Your task to perform on an android device: Open eBay Image 0: 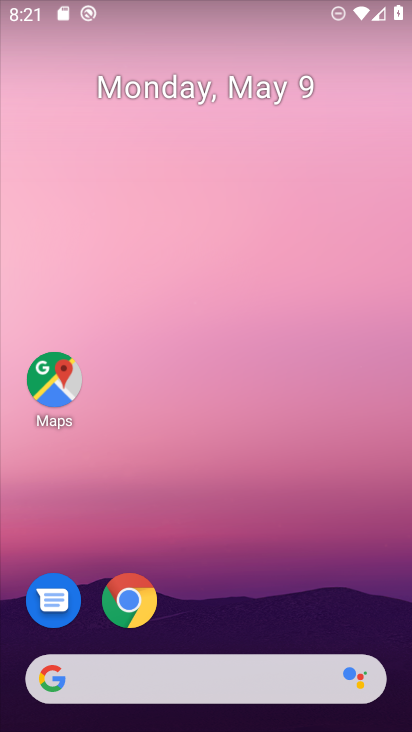
Step 0: drag from (224, 574) to (185, 72)
Your task to perform on an android device: Open eBay Image 1: 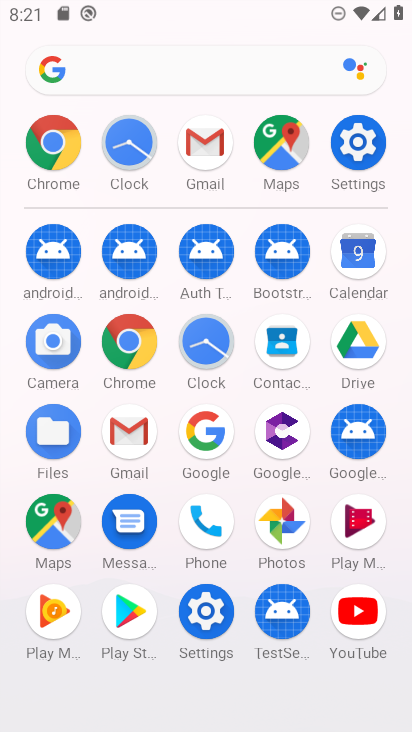
Step 1: drag from (10, 589) to (15, 358)
Your task to perform on an android device: Open eBay Image 2: 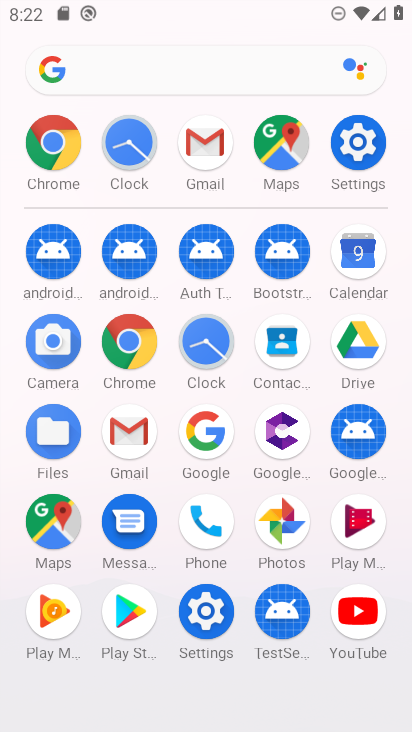
Step 2: click (128, 333)
Your task to perform on an android device: Open eBay Image 3: 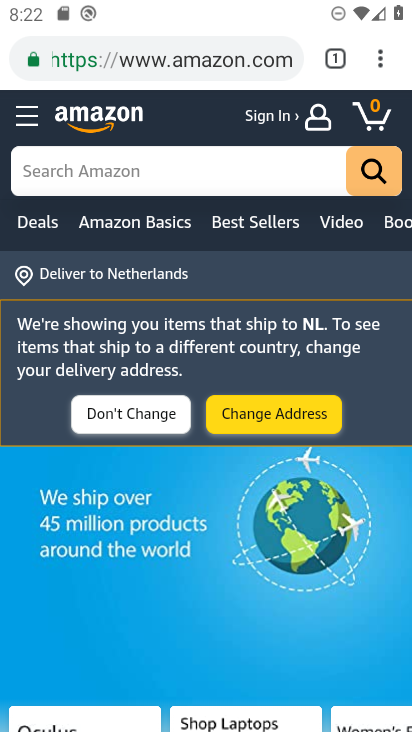
Step 3: click (178, 57)
Your task to perform on an android device: Open eBay Image 4: 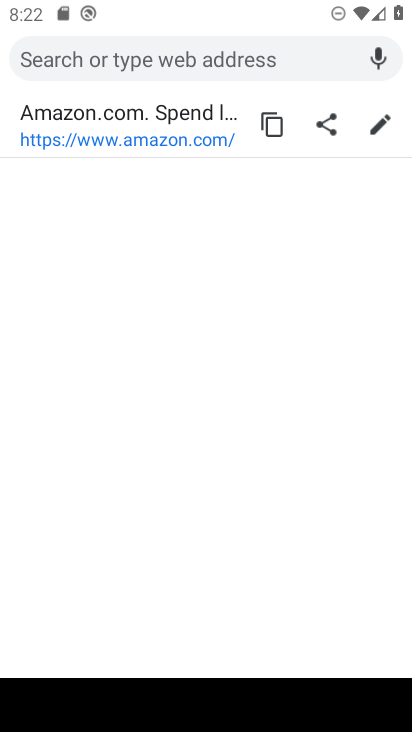
Step 4: type " eBay"
Your task to perform on an android device: Open eBay Image 5: 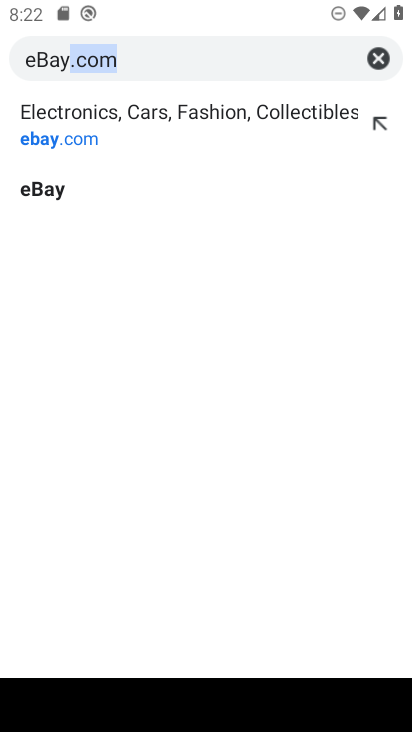
Step 5: type ""
Your task to perform on an android device: Open eBay Image 6: 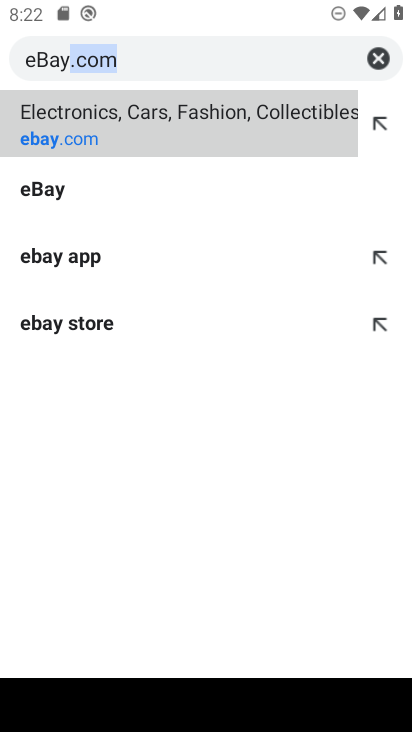
Step 6: click (85, 134)
Your task to perform on an android device: Open eBay Image 7: 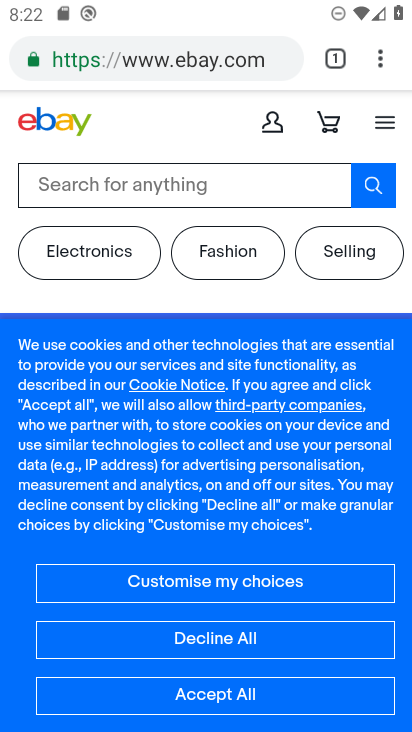
Step 7: task complete